Your task to perform on an android device: Open calendar and show me the fourth week of next month Image 0: 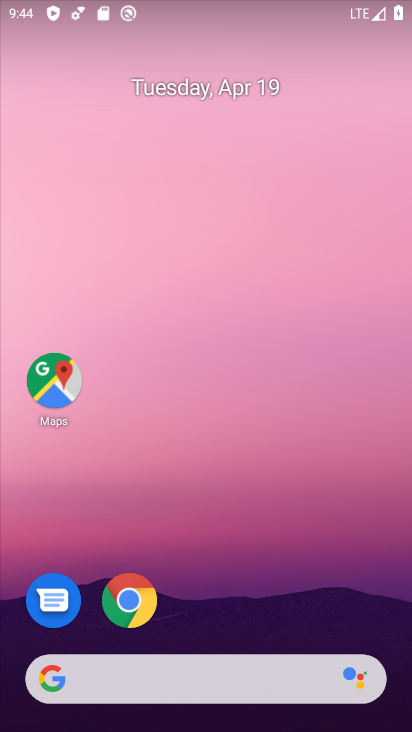
Step 0: drag from (337, 562) to (315, 147)
Your task to perform on an android device: Open calendar and show me the fourth week of next month Image 1: 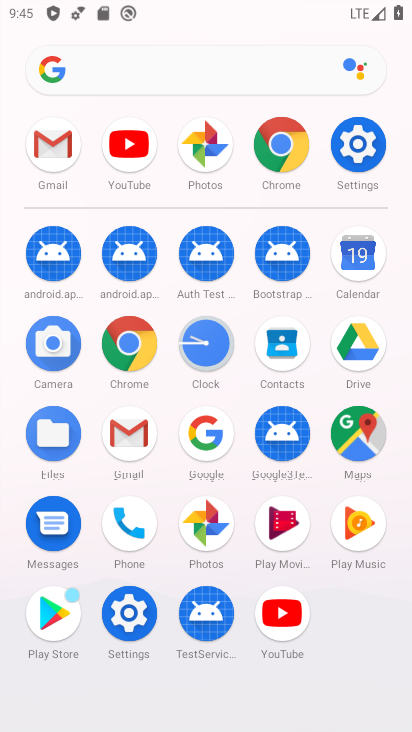
Step 1: click (353, 253)
Your task to perform on an android device: Open calendar and show me the fourth week of next month Image 2: 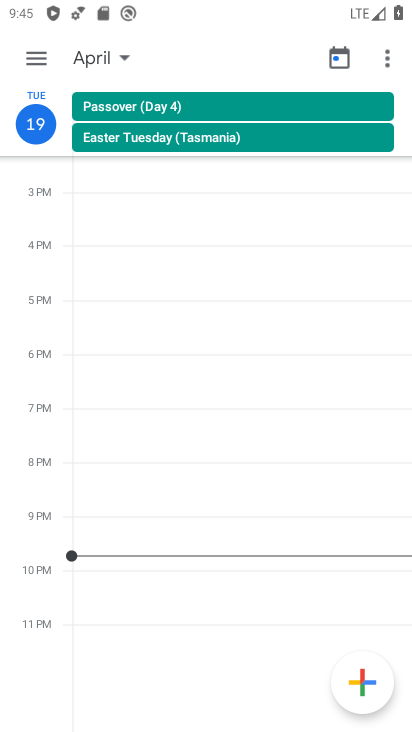
Step 2: click (46, 59)
Your task to perform on an android device: Open calendar and show me the fourth week of next month Image 3: 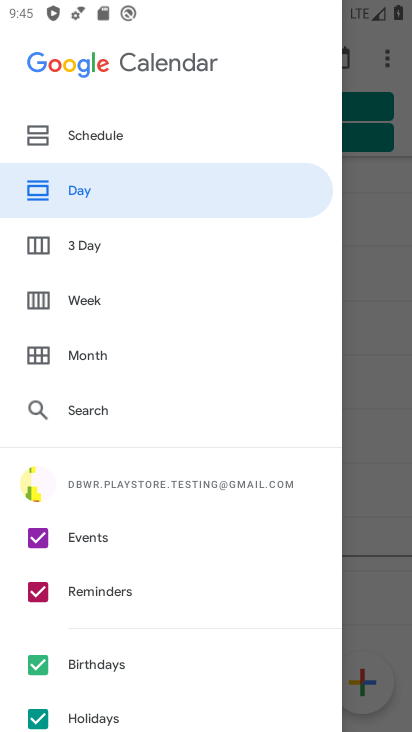
Step 3: click (136, 311)
Your task to perform on an android device: Open calendar and show me the fourth week of next month Image 4: 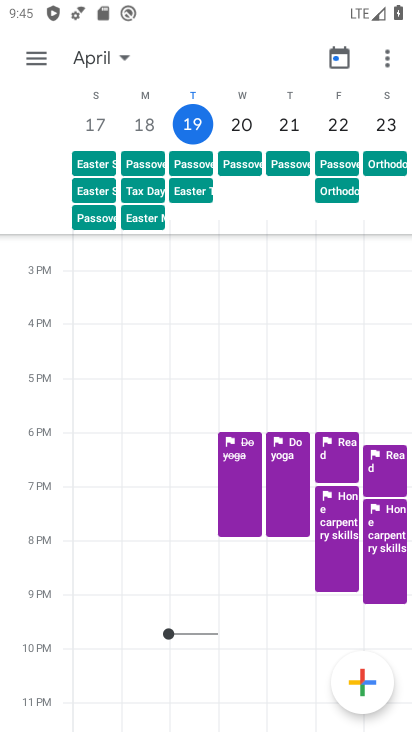
Step 4: click (124, 59)
Your task to perform on an android device: Open calendar and show me the fourth week of next month Image 5: 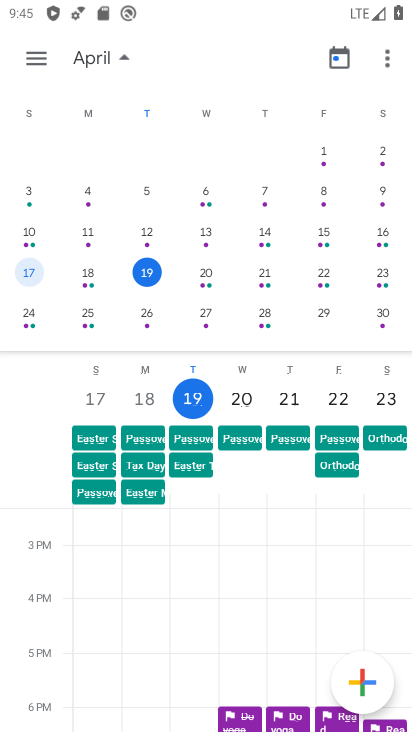
Step 5: click (203, 315)
Your task to perform on an android device: Open calendar and show me the fourth week of next month Image 6: 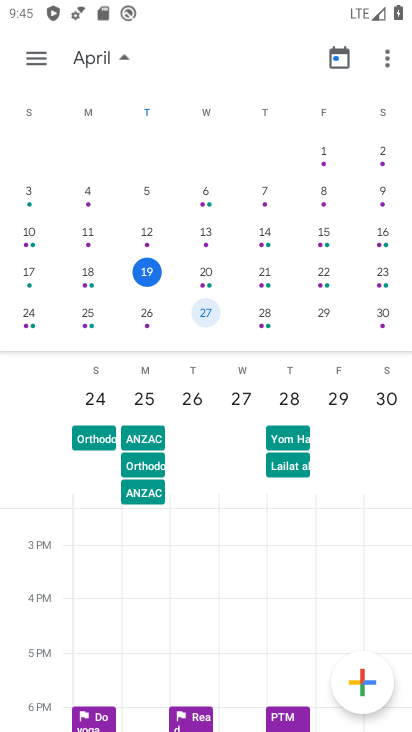
Step 6: drag from (385, 255) to (30, 281)
Your task to perform on an android device: Open calendar and show me the fourth week of next month Image 7: 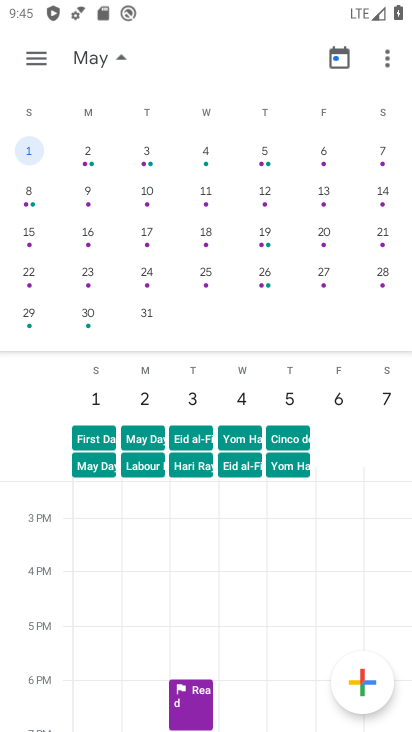
Step 7: click (212, 271)
Your task to perform on an android device: Open calendar and show me the fourth week of next month Image 8: 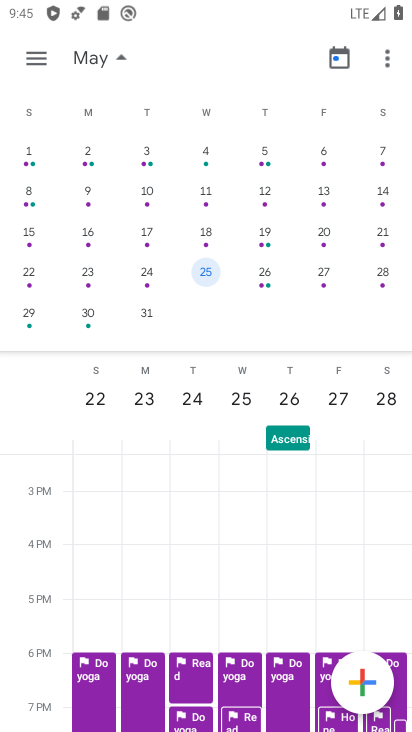
Step 8: task complete